Your task to perform on an android device: Open the stopwatch Image 0: 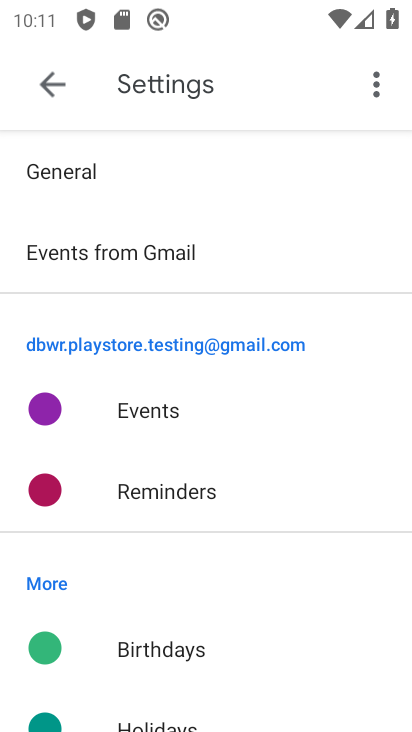
Step 0: press home button
Your task to perform on an android device: Open the stopwatch Image 1: 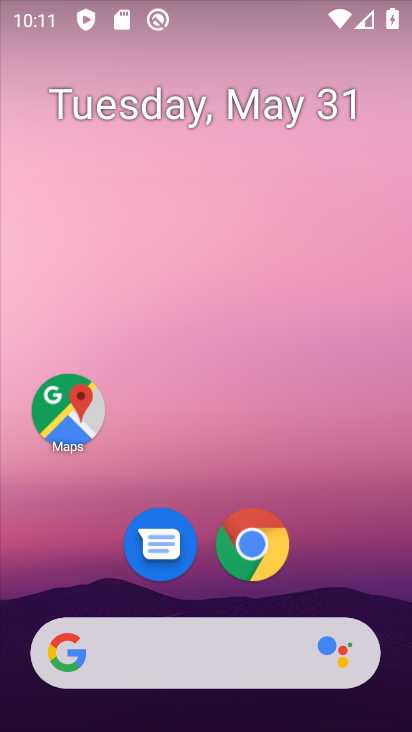
Step 1: drag from (212, 588) to (177, 202)
Your task to perform on an android device: Open the stopwatch Image 2: 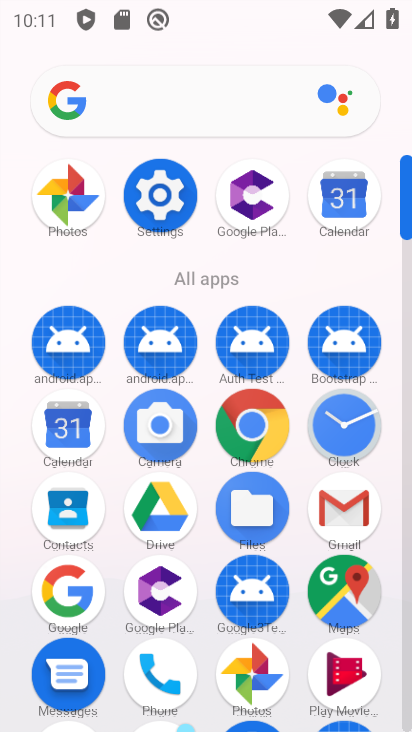
Step 2: click (366, 427)
Your task to perform on an android device: Open the stopwatch Image 3: 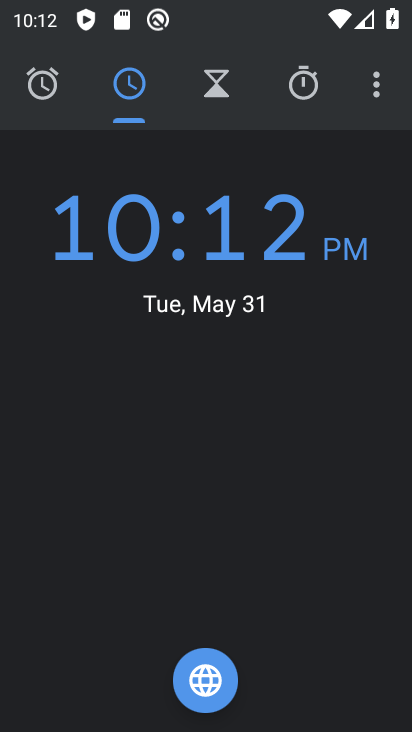
Step 3: click (293, 80)
Your task to perform on an android device: Open the stopwatch Image 4: 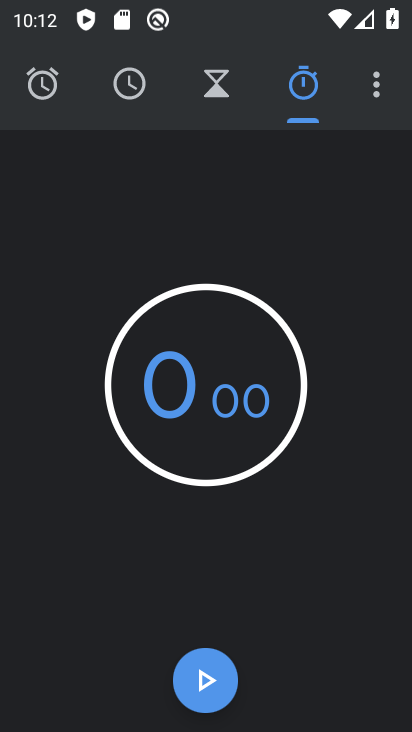
Step 4: task complete